Your task to perform on an android device: Go to wifi settings Image 0: 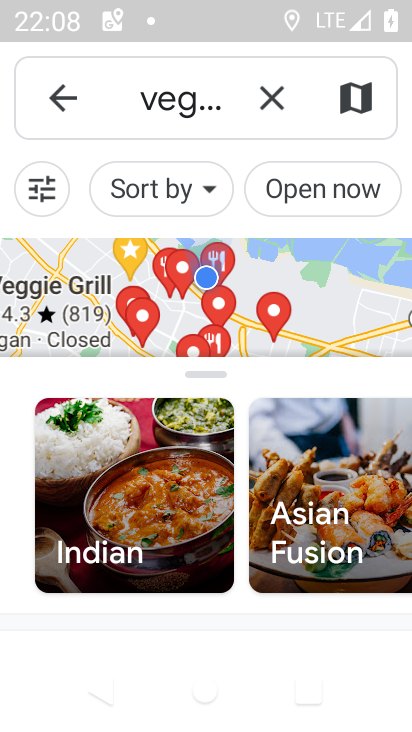
Step 0: drag from (233, 653) to (298, 188)
Your task to perform on an android device: Go to wifi settings Image 1: 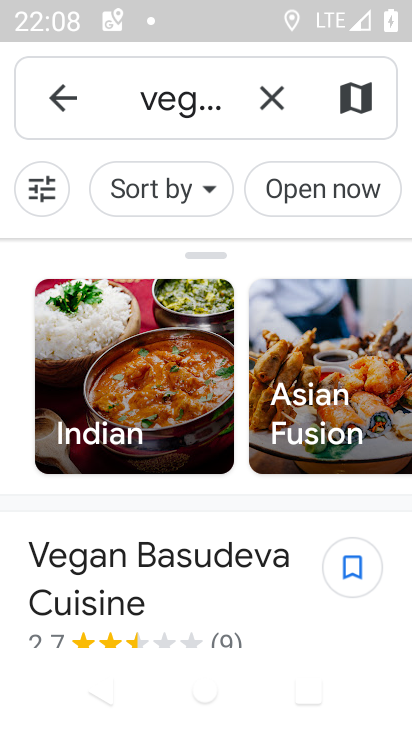
Step 1: press home button
Your task to perform on an android device: Go to wifi settings Image 2: 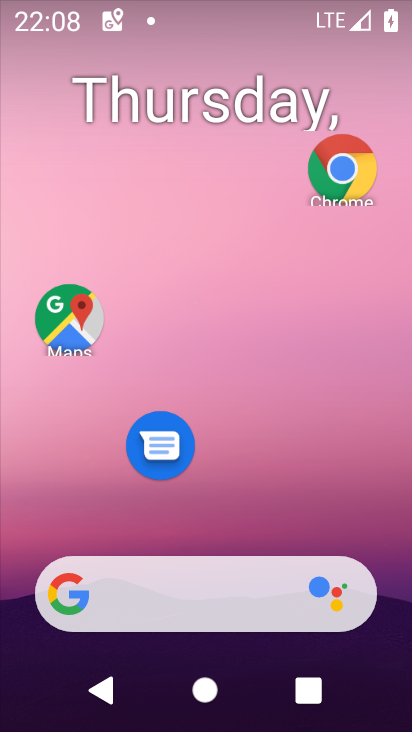
Step 2: drag from (212, 533) to (173, 23)
Your task to perform on an android device: Go to wifi settings Image 3: 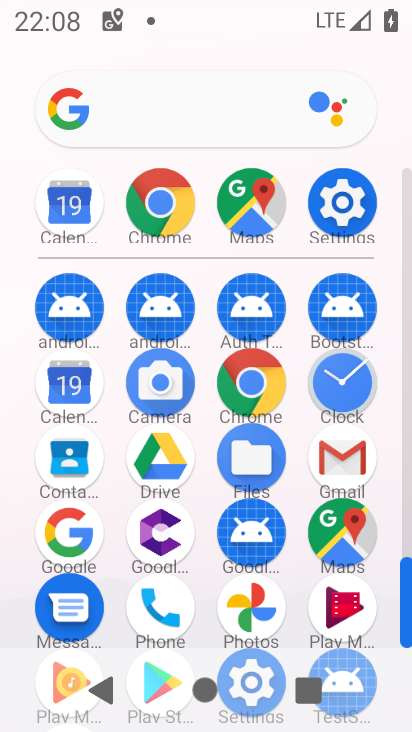
Step 3: click (347, 200)
Your task to perform on an android device: Go to wifi settings Image 4: 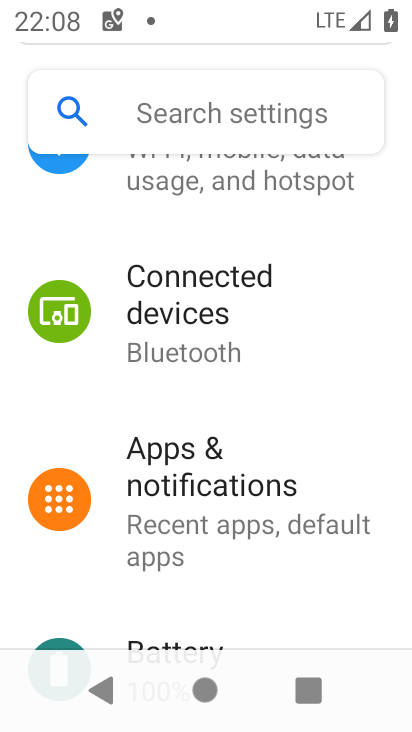
Step 4: drag from (219, 194) to (251, 546)
Your task to perform on an android device: Go to wifi settings Image 5: 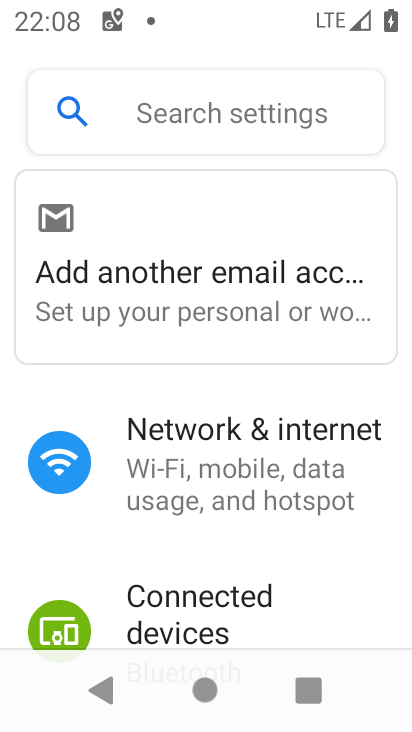
Step 5: click (204, 449)
Your task to perform on an android device: Go to wifi settings Image 6: 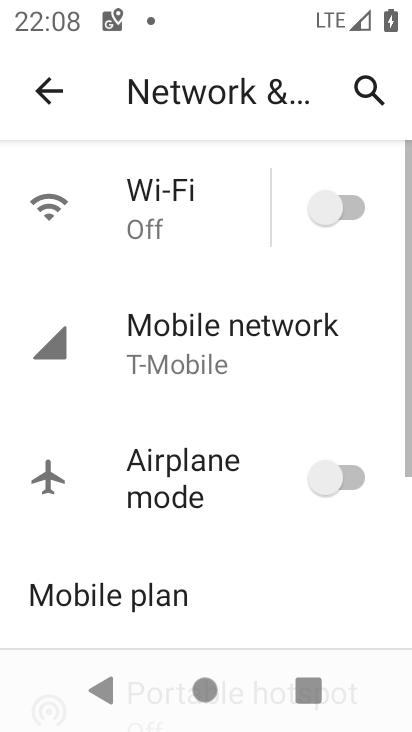
Step 6: click (186, 205)
Your task to perform on an android device: Go to wifi settings Image 7: 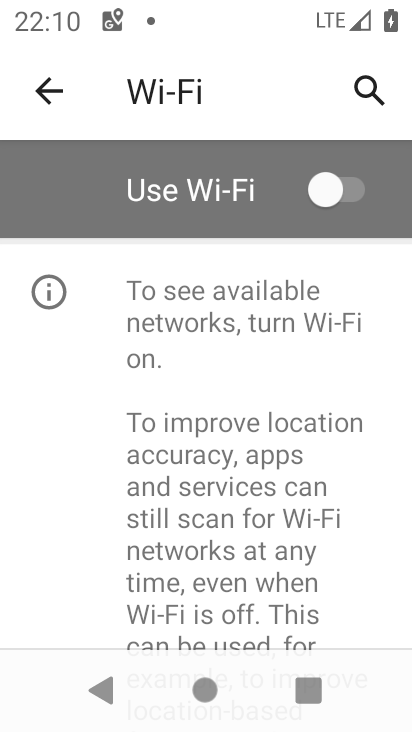
Step 7: click (338, 219)
Your task to perform on an android device: Go to wifi settings Image 8: 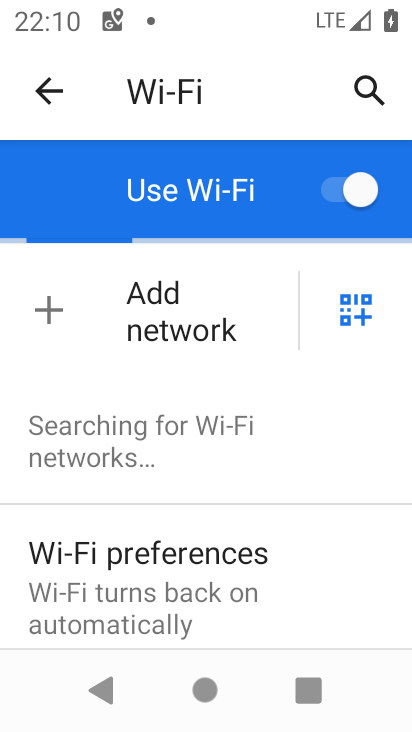
Step 8: task complete